Your task to perform on an android device: Open maps Image 0: 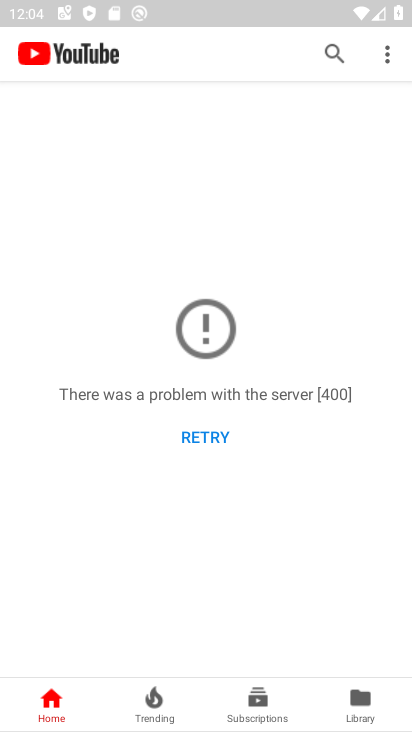
Step 0: press home button
Your task to perform on an android device: Open maps Image 1: 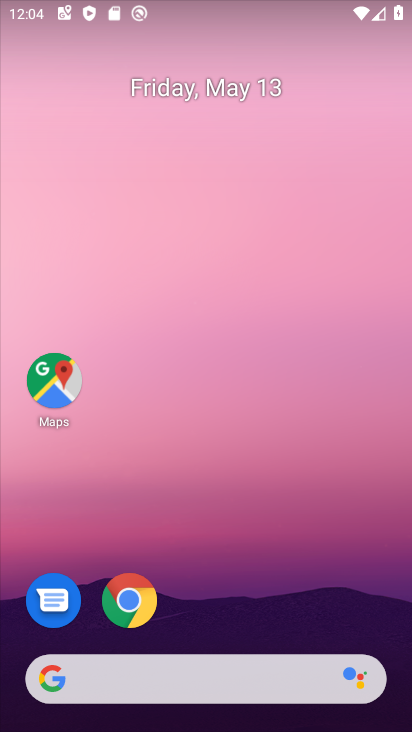
Step 1: click (71, 384)
Your task to perform on an android device: Open maps Image 2: 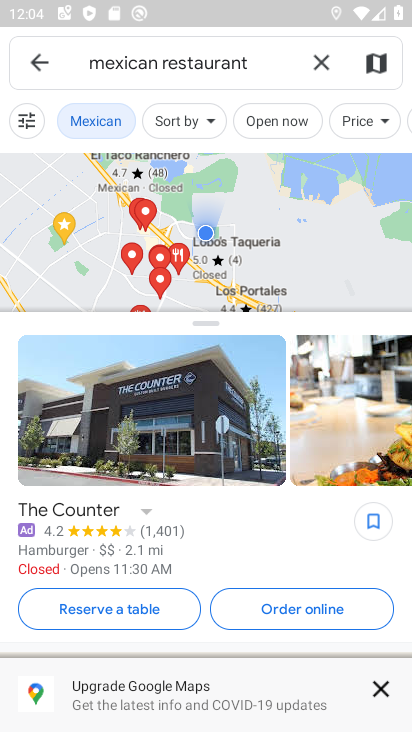
Step 2: click (316, 65)
Your task to perform on an android device: Open maps Image 3: 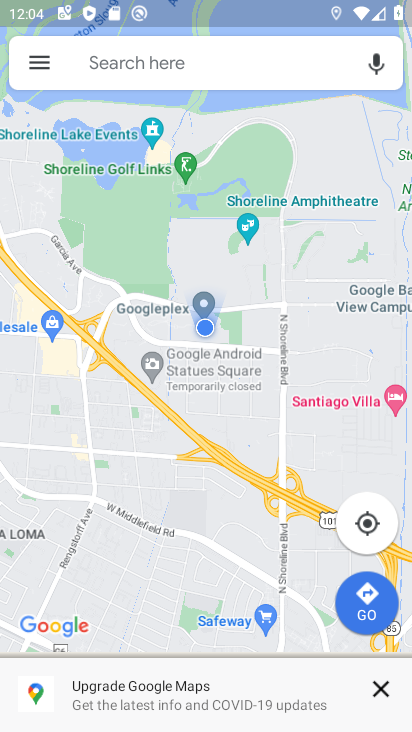
Step 3: task complete